Your task to perform on an android device: Open Yahoo.com Image 0: 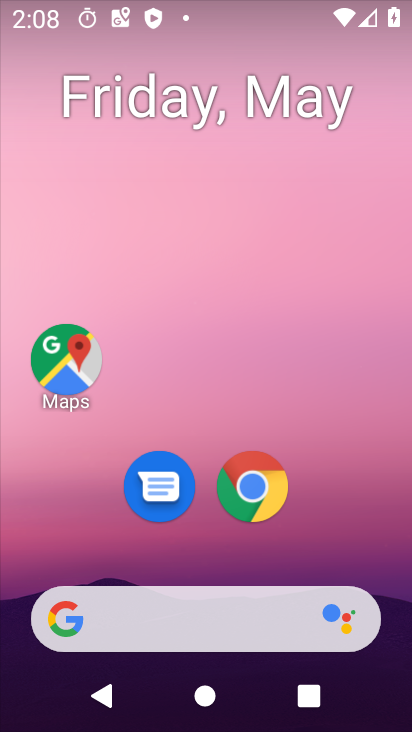
Step 0: click (250, 471)
Your task to perform on an android device: Open Yahoo.com Image 1: 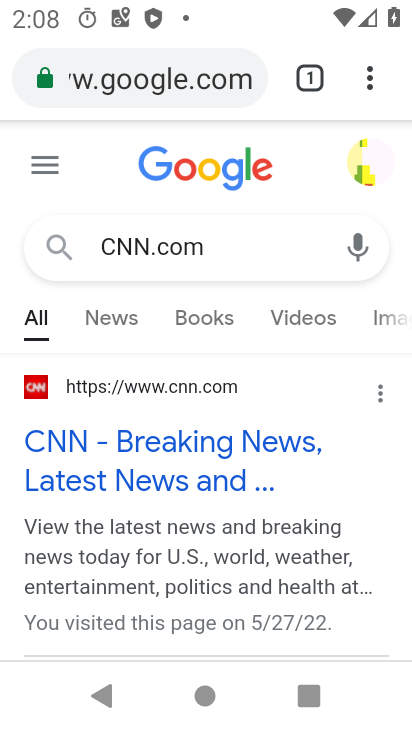
Step 1: click (249, 88)
Your task to perform on an android device: Open Yahoo.com Image 2: 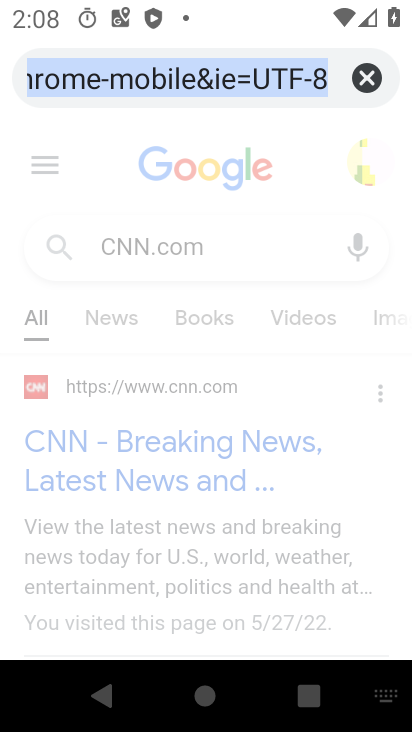
Step 2: click (371, 80)
Your task to perform on an android device: Open Yahoo.com Image 3: 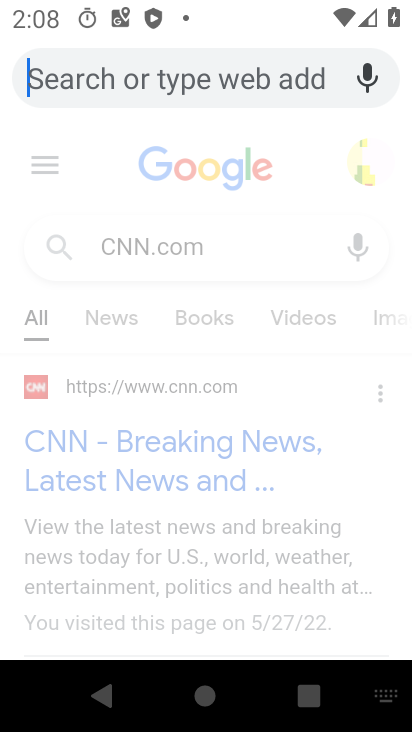
Step 3: type "Yahoo.com"
Your task to perform on an android device: Open Yahoo.com Image 4: 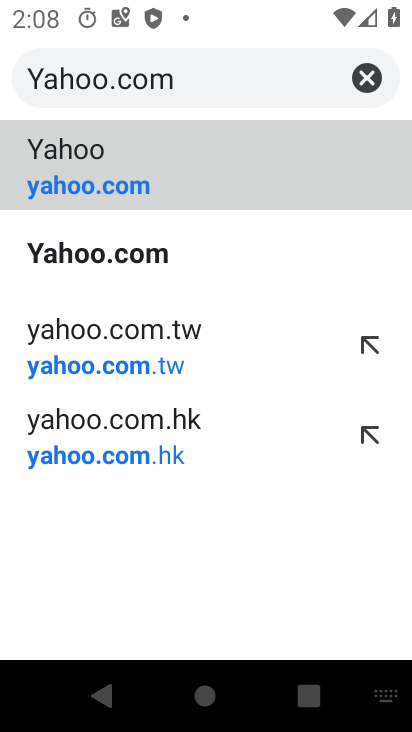
Step 4: click (128, 243)
Your task to perform on an android device: Open Yahoo.com Image 5: 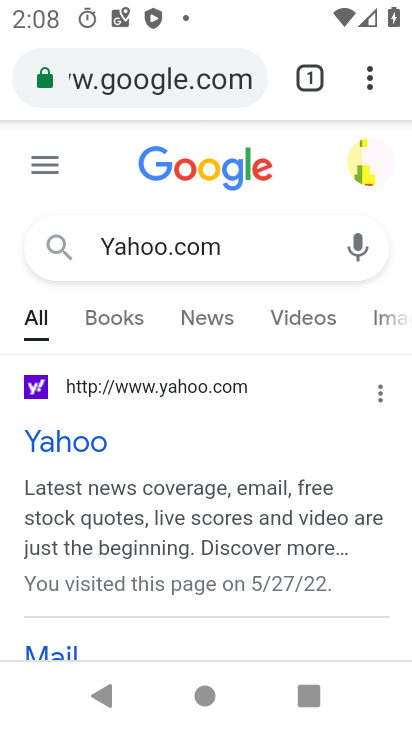
Step 5: task complete